Your task to perform on an android device: open a new tab in the chrome app Image 0: 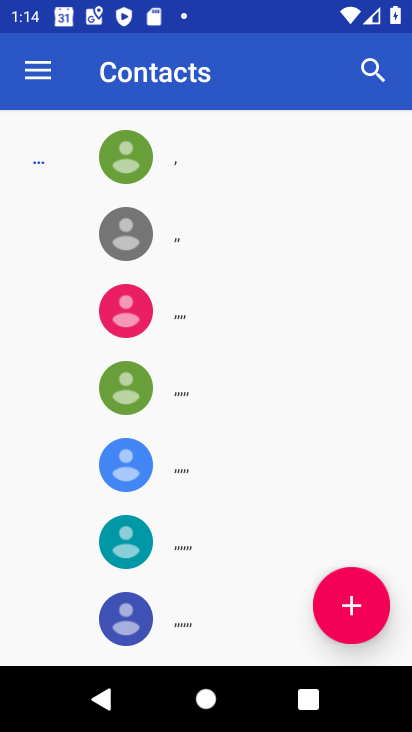
Step 0: press home button
Your task to perform on an android device: open a new tab in the chrome app Image 1: 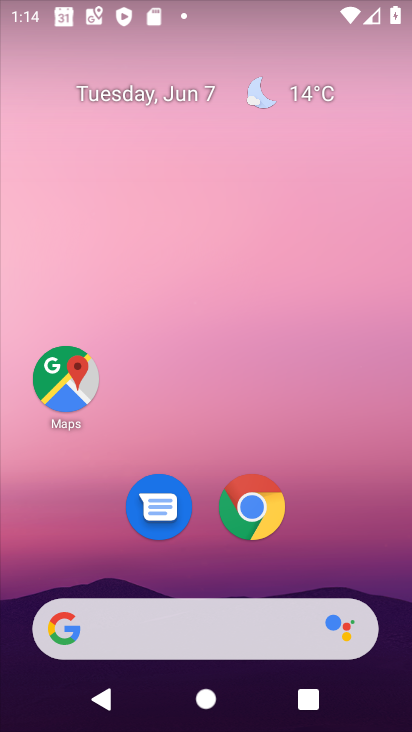
Step 1: click (252, 505)
Your task to perform on an android device: open a new tab in the chrome app Image 2: 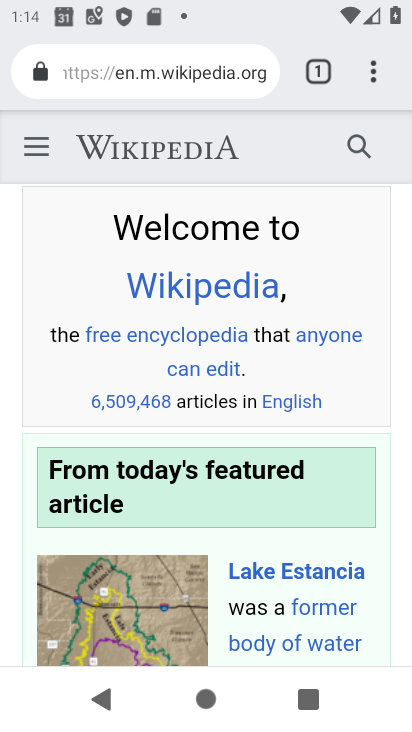
Step 2: click (377, 78)
Your task to perform on an android device: open a new tab in the chrome app Image 3: 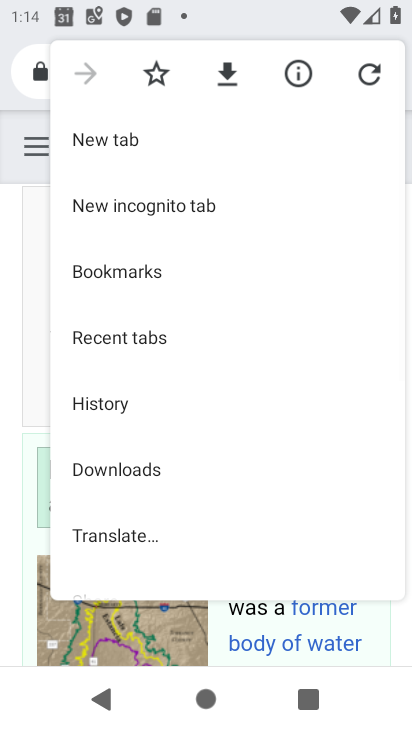
Step 3: click (94, 143)
Your task to perform on an android device: open a new tab in the chrome app Image 4: 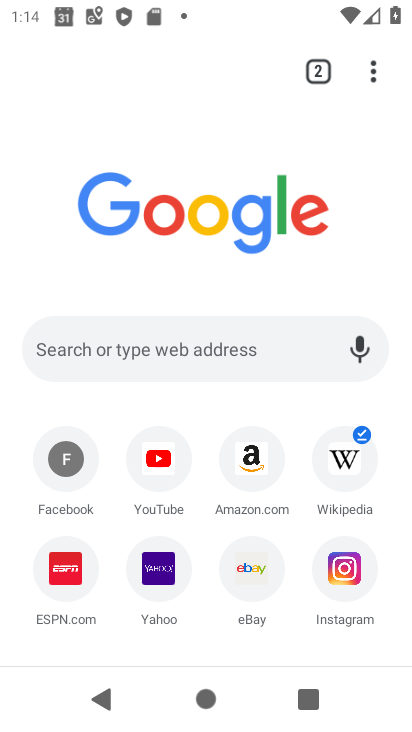
Step 4: task complete